Your task to perform on an android device: Go to Android settings Image 0: 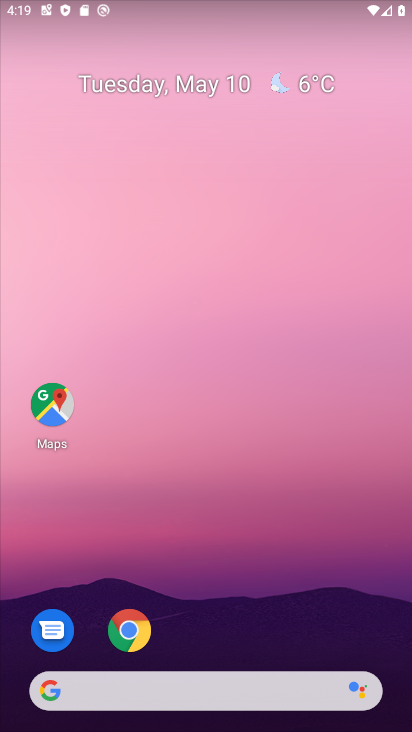
Step 0: drag from (248, 599) to (261, 176)
Your task to perform on an android device: Go to Android settings Image 1: 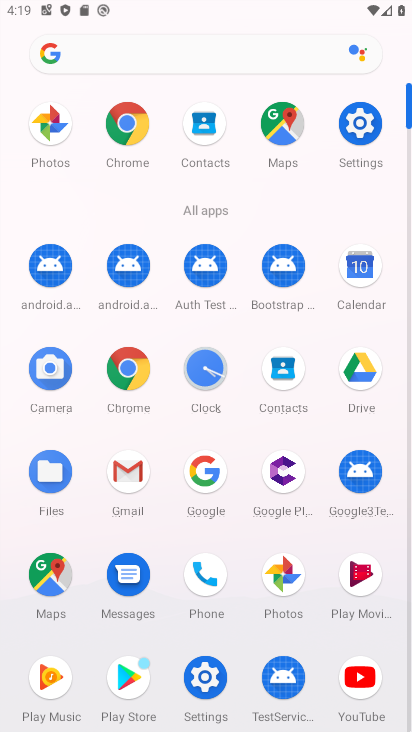
Step 1: click (361, 127)
Your task to perform on an android device: Go to Android settings Image 2: 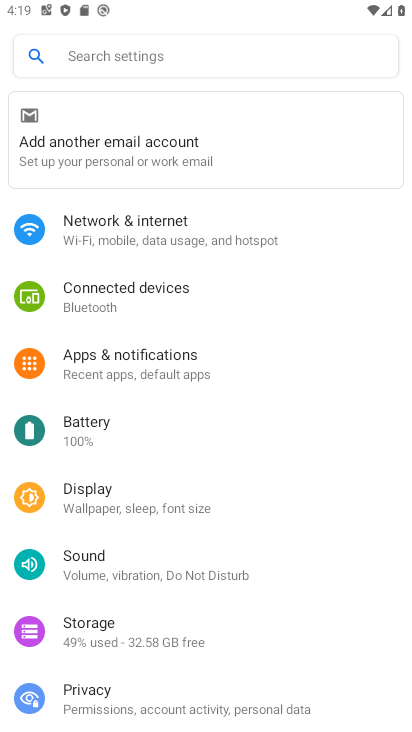
Step 2: task complete